Your task to perform on an android device: toggle priority inbox in the gmail app Image 0: 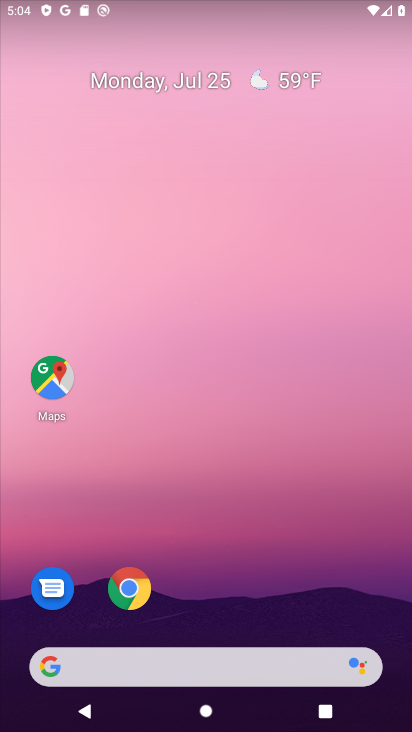
Step 0: drag from (227, 522) to (267, 51)
Your task to perform on an android device: toggle priority inbox in the gmail app Image 1: 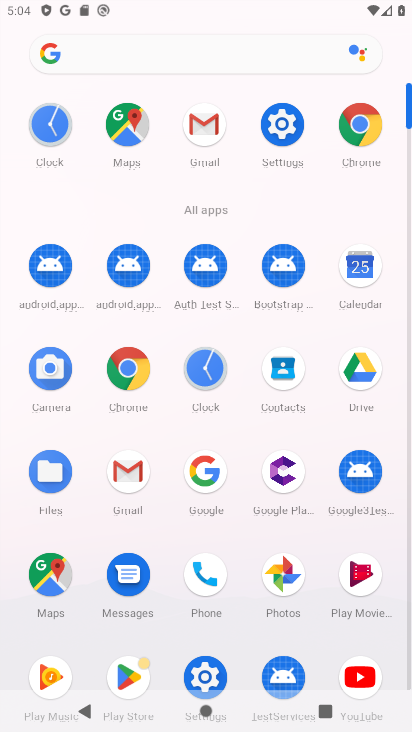
Step 1: click (122, 478)
Your task to perform on an android device: toggle priority inbox in the gmail app Image 2: 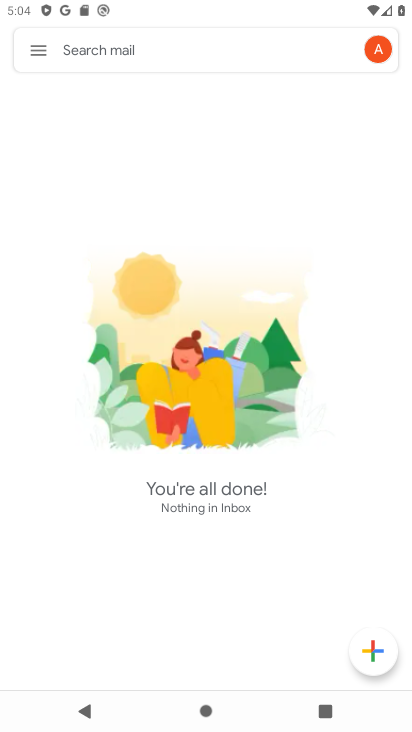
Step 2: task complete